Your task to perform on an android device: toggle notifications settings in the gmail app Image 0: 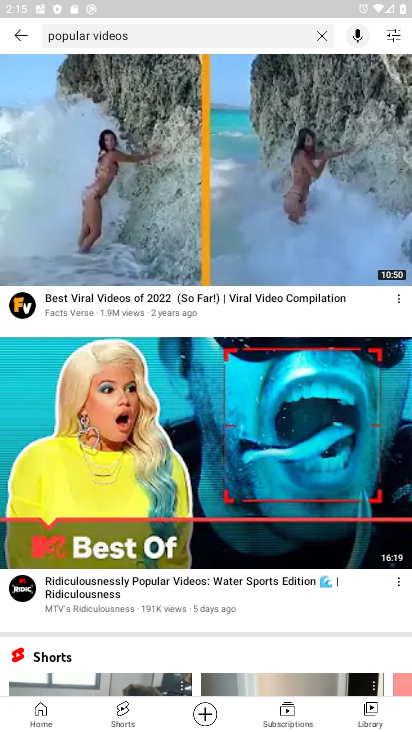
Step 0: press home button
Your task to perform on an android device: toggle notifications settings in the gmail app Image 1: 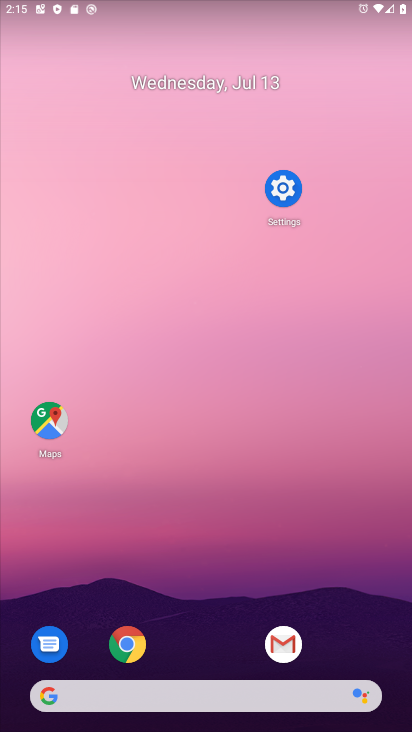
Step 1: click (277, 634)
Your task to perform on an android device: toggle notifications settings in the gmail app Image 2: 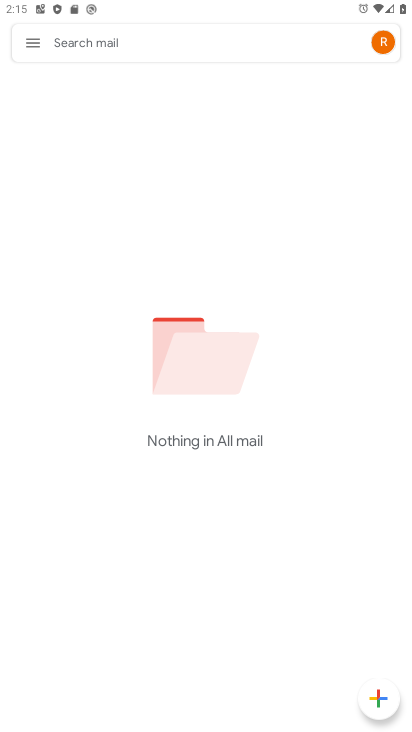
Step 2: click (39, 39)
Your task to perform on an android device: toggle notifications settings in the gmail app Image 3: 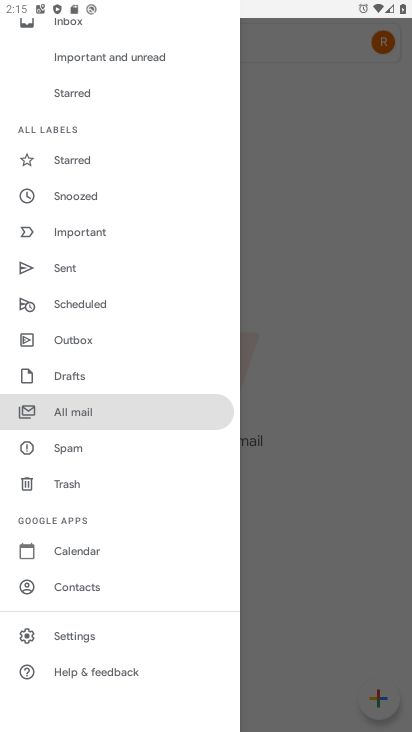
Step 3: click (93, 631)
Your task to perform on an android device: toggle notifications settings in the gmail app Image 4: 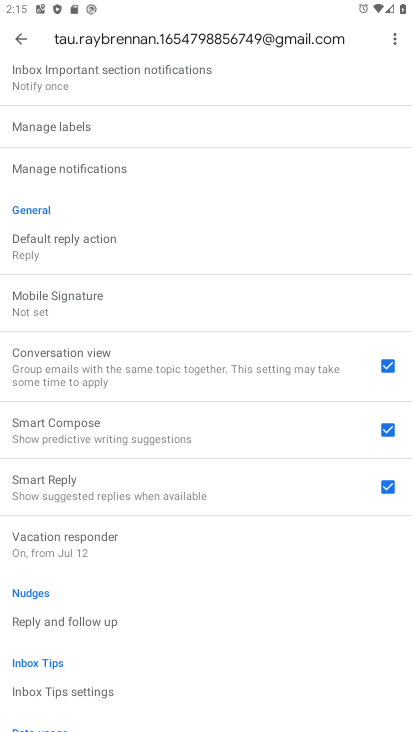
Step 4: click (78, 168)
Your task to perform on an android device: toggle notifications settings in the gmail app Image 5: 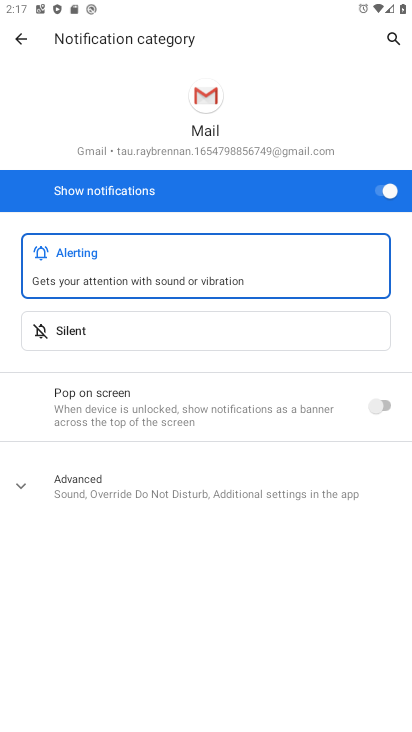
Step 5: task complete